Your task to perform on an android device: Open calendar and show me the third week of next month Image 0: 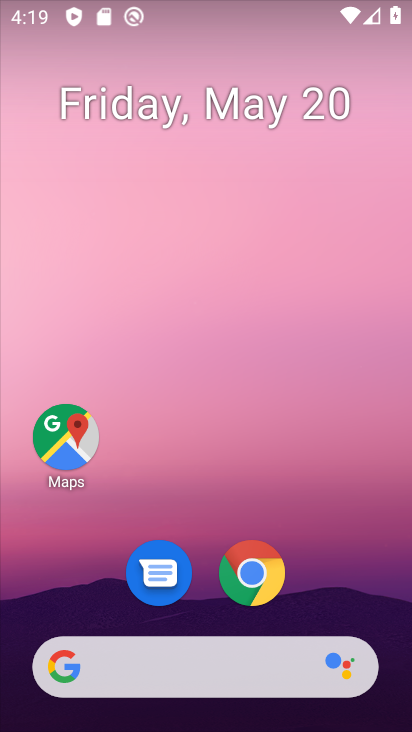
Step 0: drag from (300, 702) to (133, 120)
Your task to perform on an android device: Open calendar and show me the third week of next month Image 1: 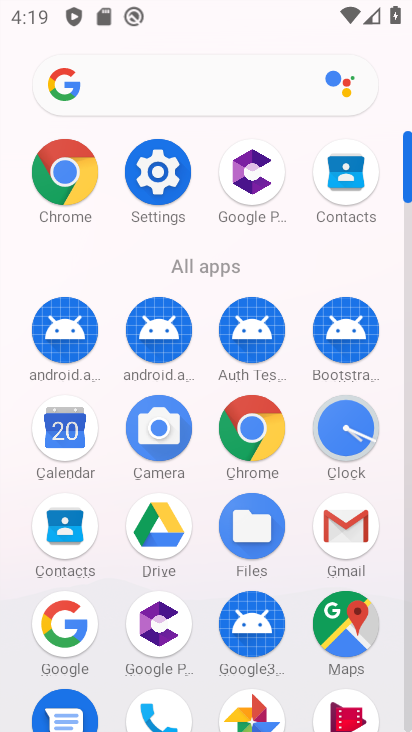
Step 1: click (52, 417)
Your task to perform on an android device: Open calendar and show me the third week of next month Image 2: 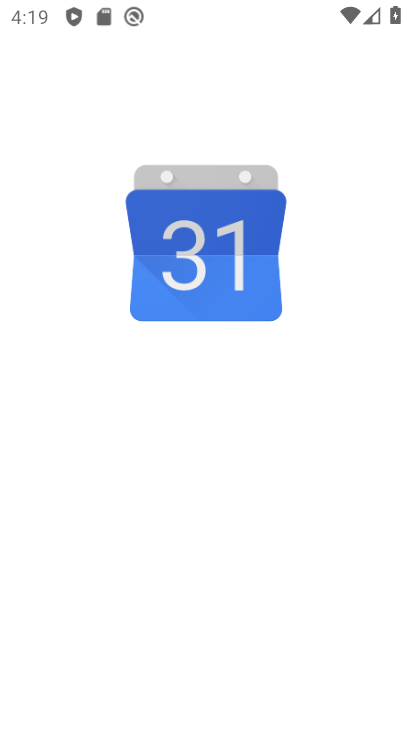
Step 2: click (66, 447)
Your task to perform on an android device: Open calendar and show me the third week of next month Image 3: 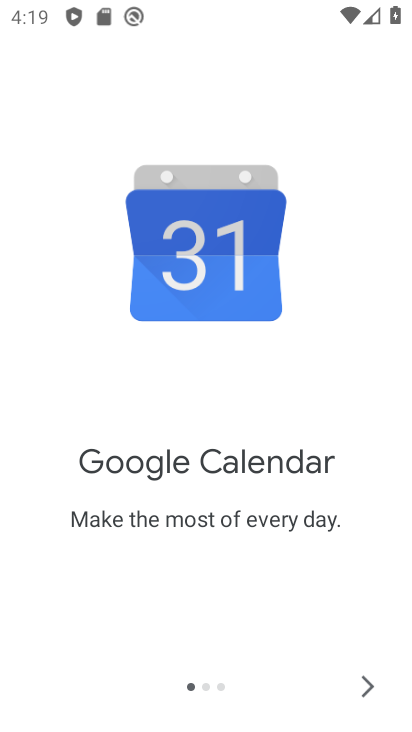
Step 3: click (372, 683)
Your task to perform on an android device: Open calendar and show me the third week of next month Image 4: 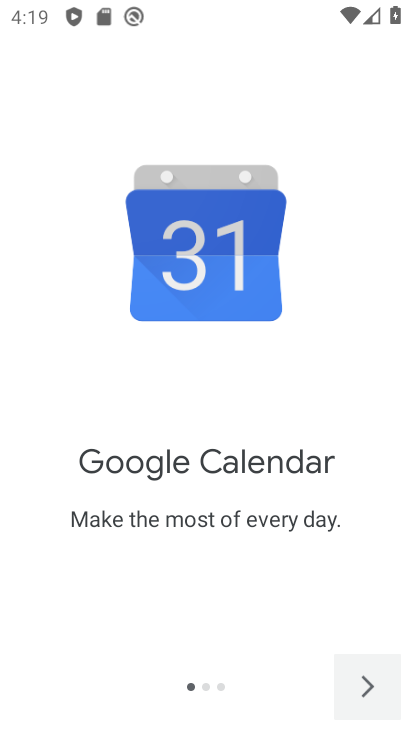
Step 4: click (372, 683)
Your task to perform on an android device: Open calendar and show me the third week of next month Image 5: 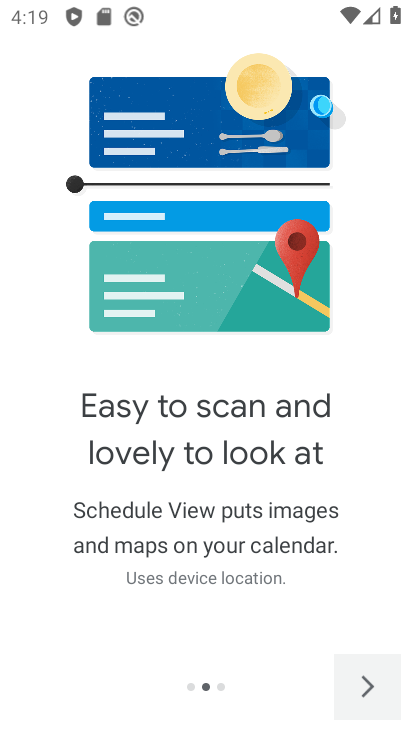
Step 5: click (372, 683)
Your task to perform on an android device: Open calendar and show me the third week of next month Image 6: 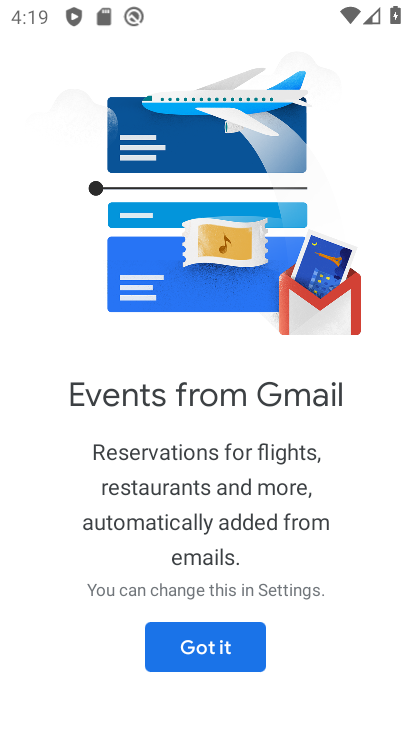
Step 6: click (370, 682)
Your task to perform on an android device: Open calendar and show me the third week of next month Image 7: 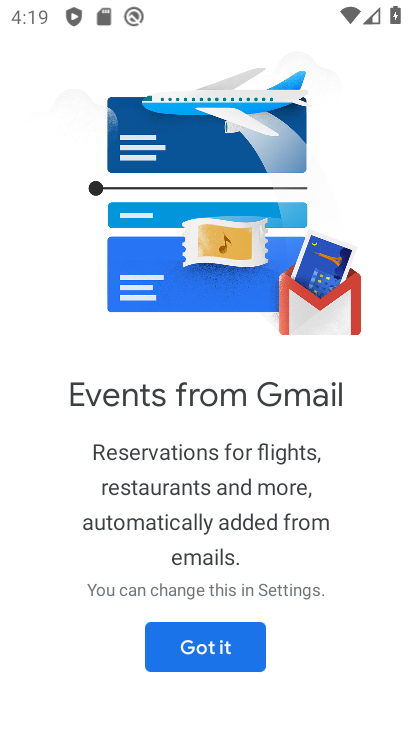
Step 7: click (206, 641)
Your task to perform on an android device: Open calendar and show me the third week of next month Image 8: 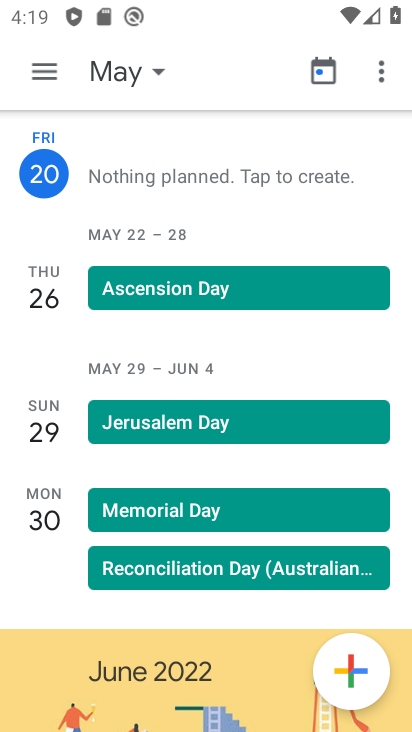
Step 8: click (158, 63)
Your task to perform on an android device: Open calendar and show me the third week of next month Image 9: 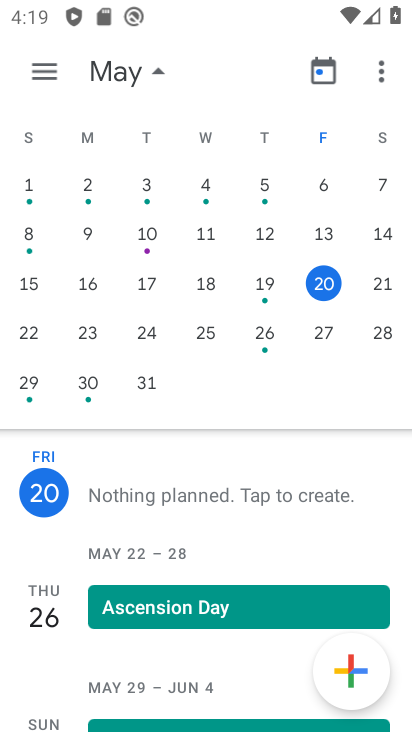
Step 9: drag from (327, 295) to (15, 297)
Your task to perform on an android device: Open calendar and show me the third week of next month Image 10: 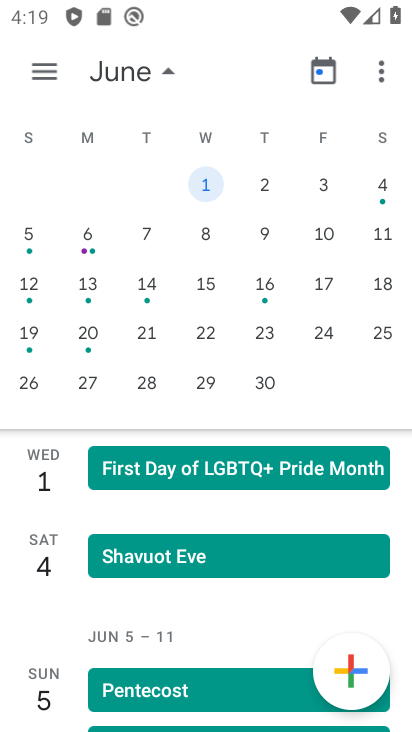
Step 10: drag from (328, 276) to (39, 282)
Your task to perform on an android device: Open calendar and show me the third week of next month Image 11: 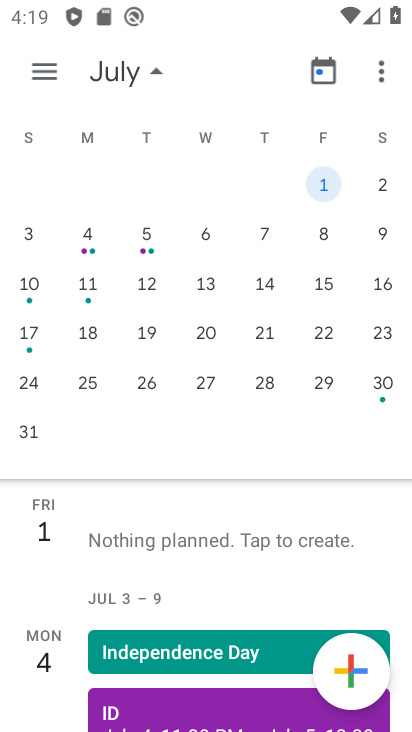
Step 11: drag from (121, 243) to (359, 313)
Your task to perform on an android device: Open calendar and show me the third week of next month Image 12: 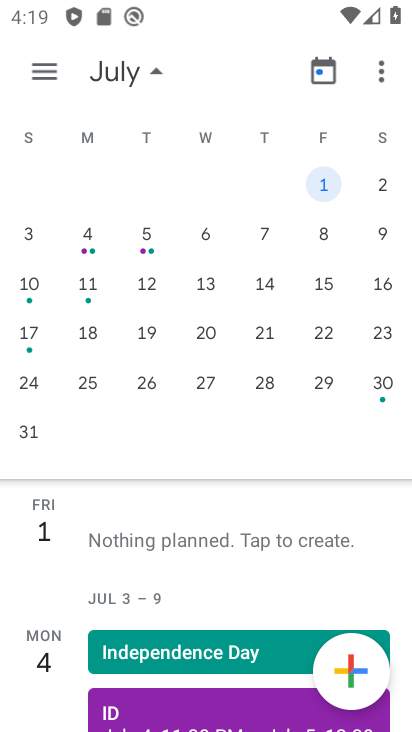
Step 12: drag from (40, 305) to (406, 314)
Your task to perform on an android device: Open calendar and show me the third week of next month Image 13: 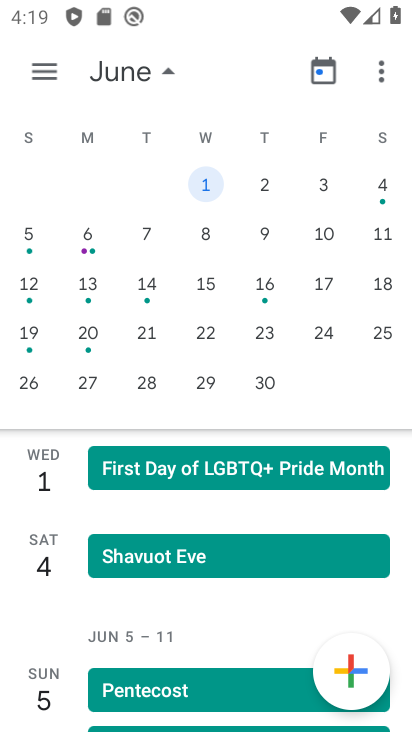
Step 13: click (207, 279)
Your task to perform on an android device: Open calendar and show me the third week of next month Image 14: 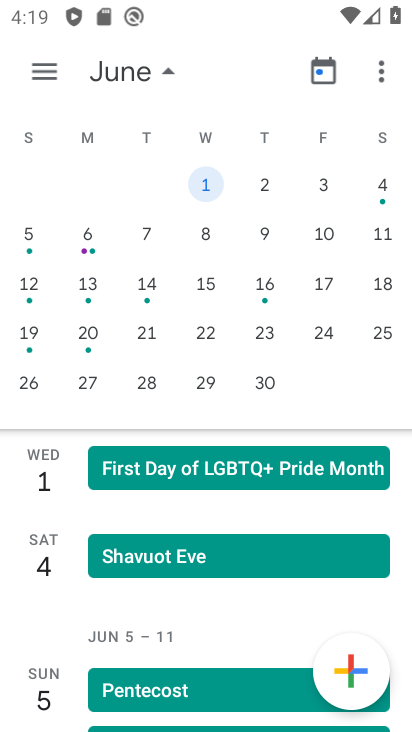
Step 14: click (205, 281)
Your task to perform on an android device: Open calendar and show me the third week of next month Image 15: 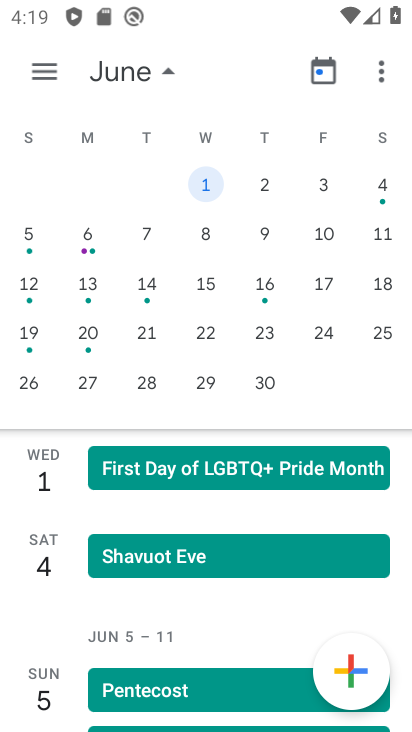
Step 15: click (202, 282)
Your task to perform on an android device: Open calendar and show me the third week of next month Image 16: 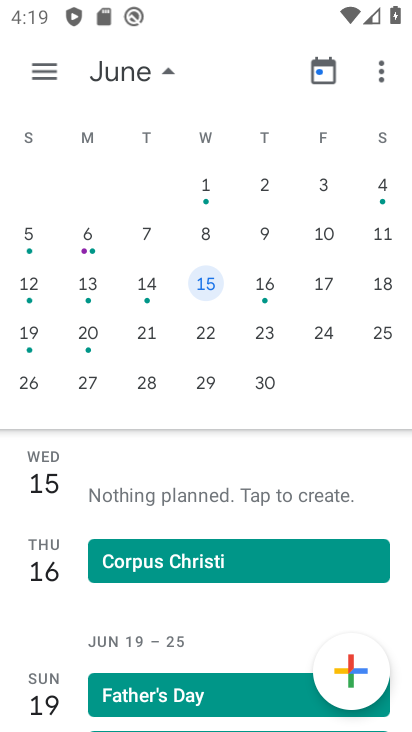
Step 16: click (202, 282)
Your task to perform on an android device: Open calendar and show me the third week of next month Image 17: 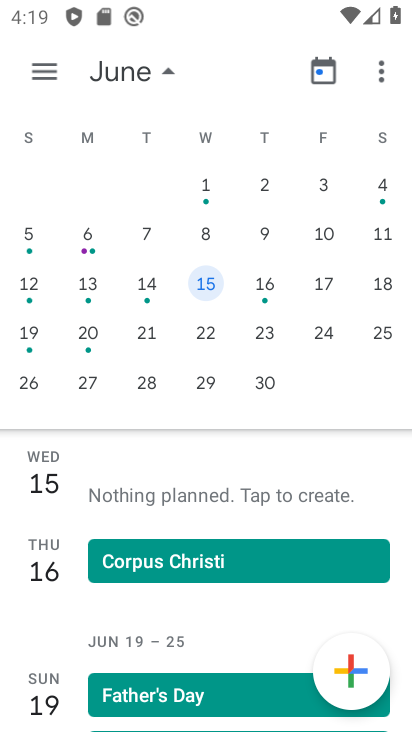
Step 17: task complete